Your task to perform on an android device: Open the phone app and click the voicemail tab. Image 0: 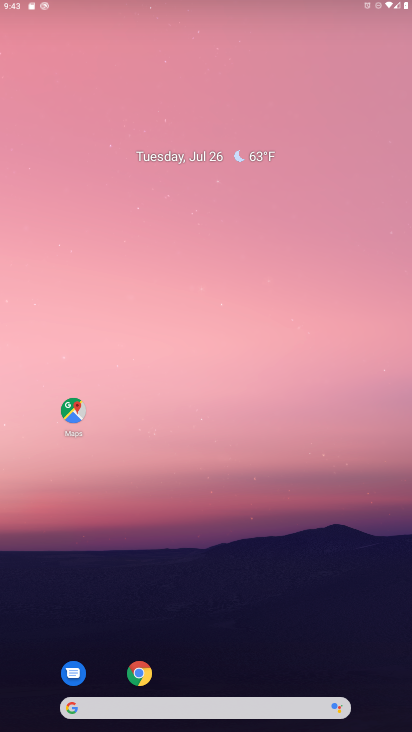
Step 0: drag from (323, 642) to (164, 54)
Your task to perform on an android device: Open the phone app and click the voicemail tab. Image 1: 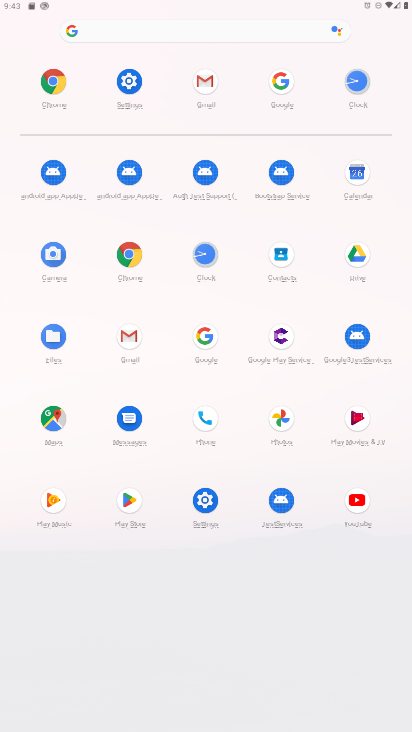
Step 1: click (184, 429)
Your task to perform on an android device: Open the phone app and click the voicemail tab. Image 2: 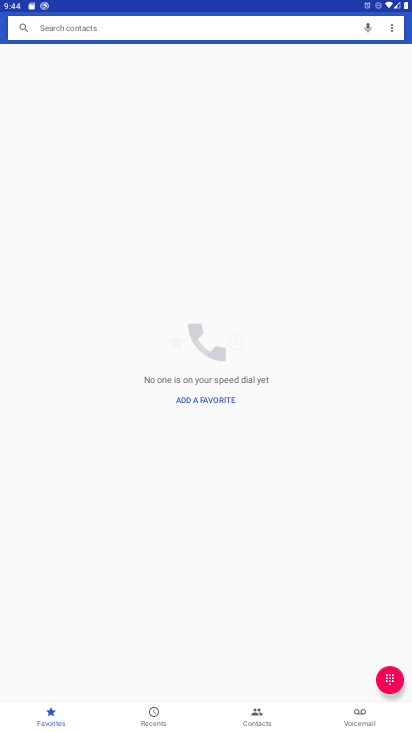
Step 2: click (350, 717)
Your task to perform on an android device: Open the phone app and click the voicemail tab. Image 3: 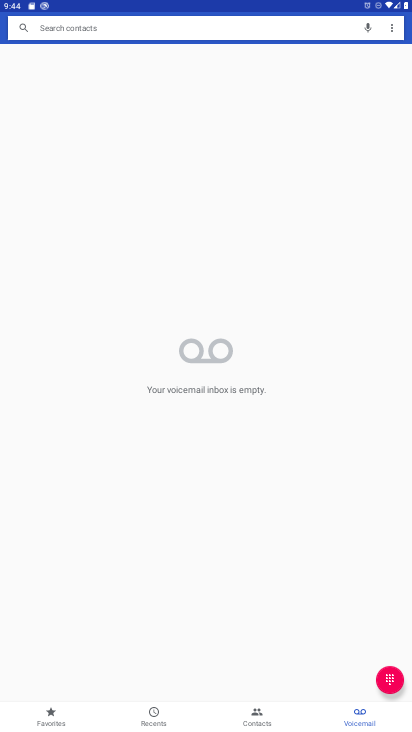
Step 3: task complete